Your task to perform on an android device: allow cookies in the chrome app Image 0: 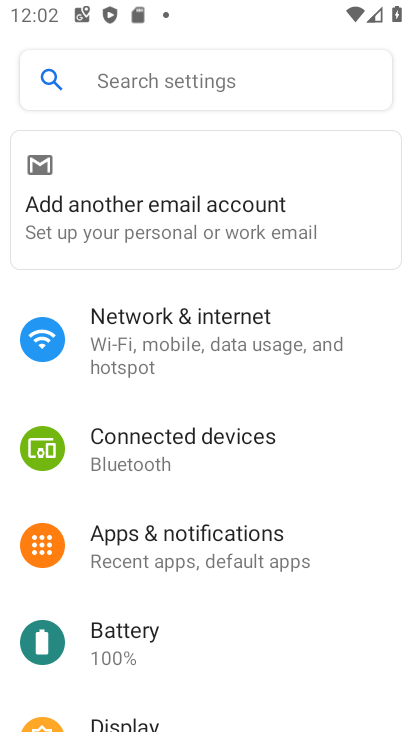
Step 0: press home button
Your task to perform on an android device: allow cookies in the chrome app Image 1: 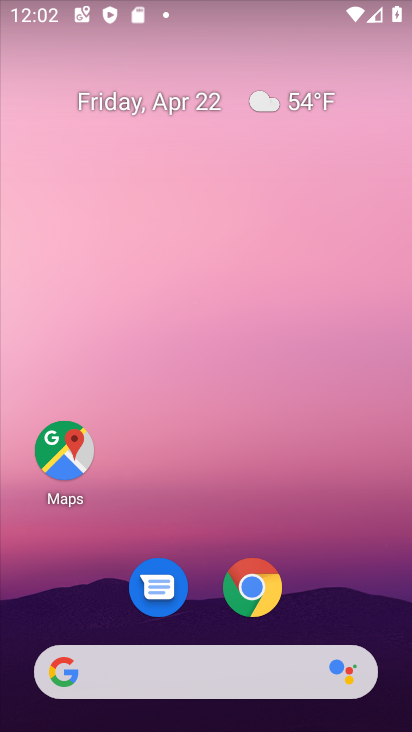
Step 1: click (261, 597)
Your task to perform on an android device: allow cookies in the chrome app Image 2: 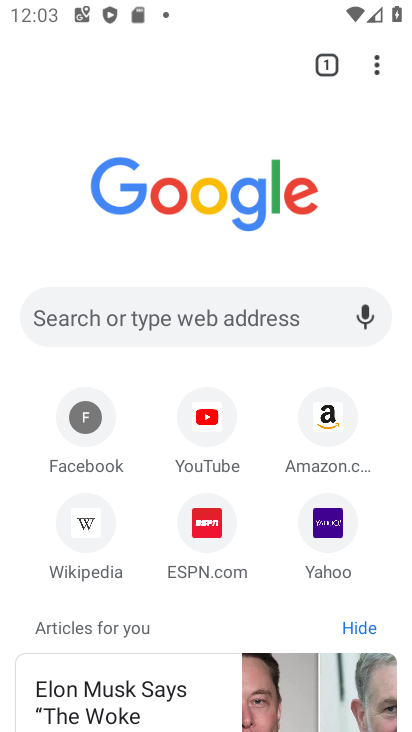
Step 2: click (376, 70)
Your task to perform on an android device: allow cookies in the chrome app Image 3: 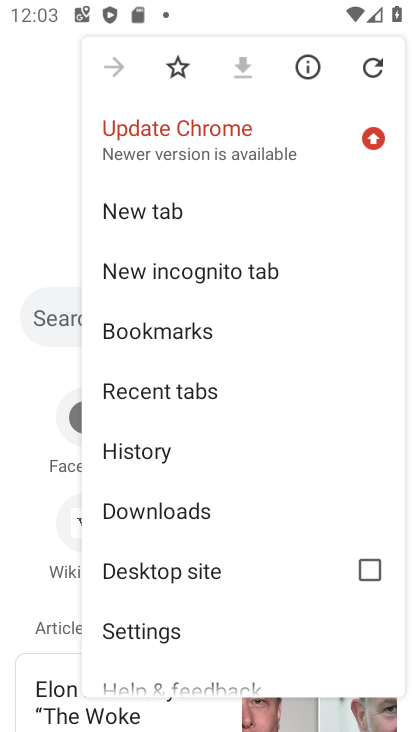
Step 3: click (151, 634)
Your task to perform on an android device: allow cookies in the chrome app Image 4: 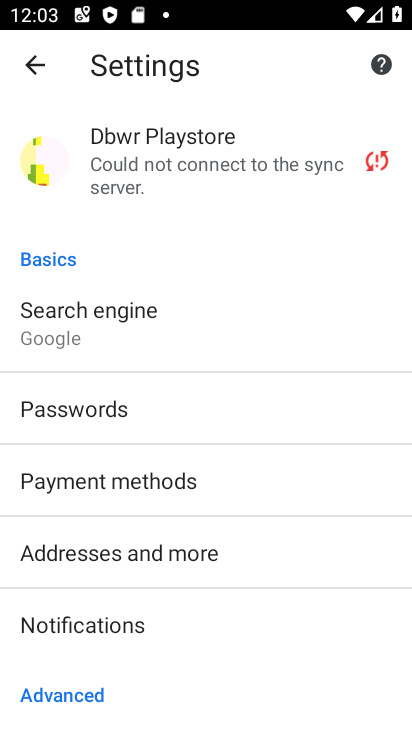
Step 4: drag from (189, 620) to (178, 138)
Your task to perform on an android device: allow cookies in the chrome app Image 5: 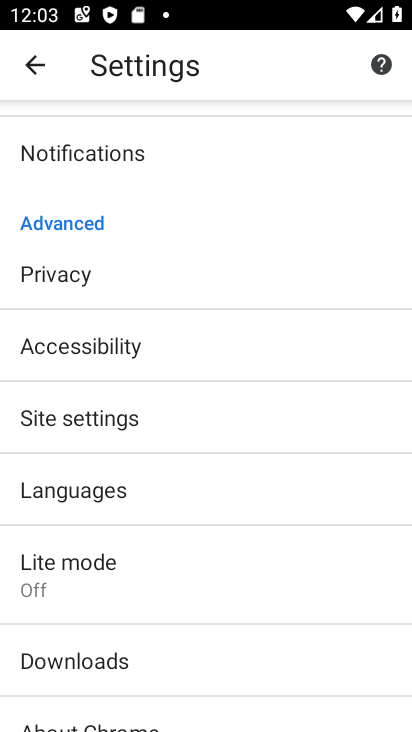
Step 5: click (90, 420)
Your task to perform on an android device: allow cookies in the chrome app Image 6: 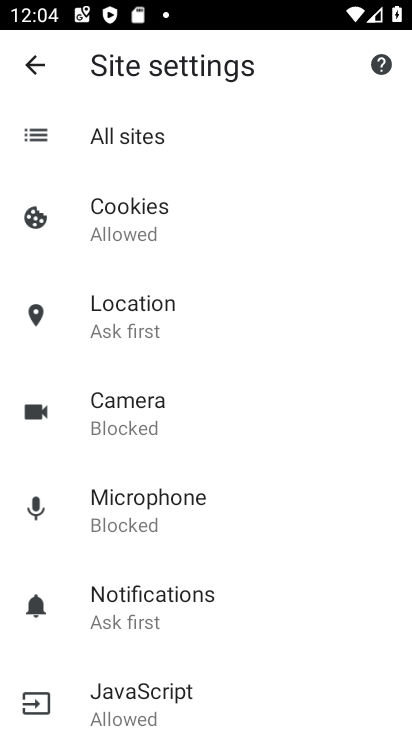
Step 6: click (142, 234)
Your task to perform on an android device: allow cookies in the chrome app Image 7: 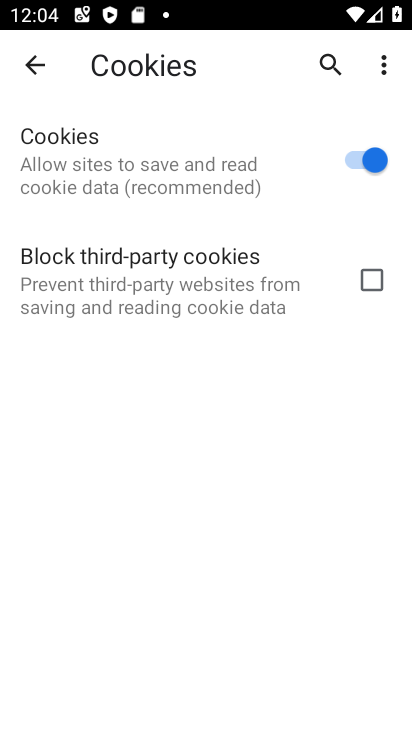
Step 7: task complete